Your task to perform on an android device: open app "Adobe Acrobat Reader: Edit PDF" (install if not already installed) Image 0: 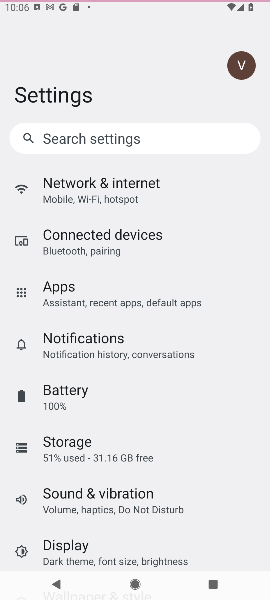
Step 0: press home button
Your task to perform on an android device: open app "Adobe Acrobat Reader: Edit PDF" (install if not already installed) Image 1: 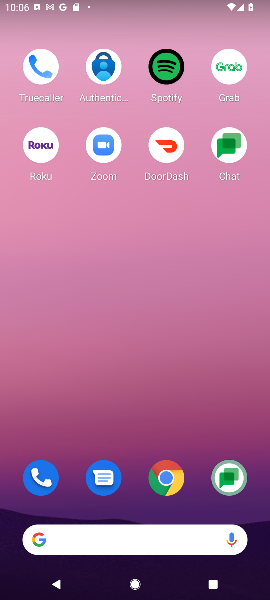
Step 1: drag from (81, 520) to (106, 0)
Your task to perform on an android device: open app "Adobe Acrobat Reader: Edit PDF" (install if not already installed) Image 2: 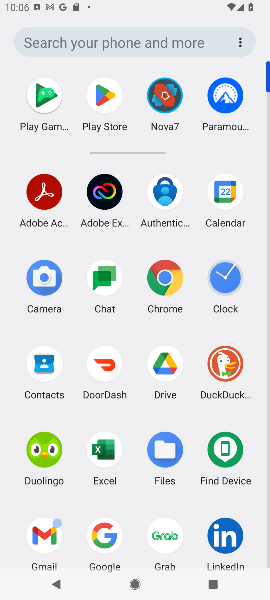
Step 2: click (45, 201)
Your task to perform on an android device: open app "Adobe Acrobat Reader: Edit PDF" (install if not already installed) Image 3: 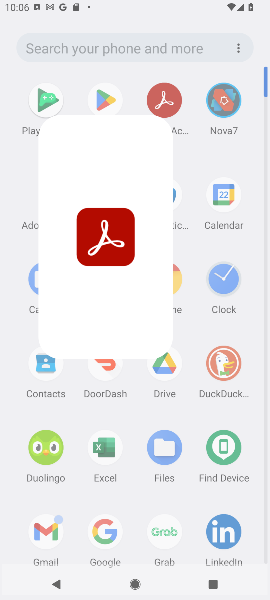
Step 3: task complete